Your task to perform on an android device: delete location history Image 0: 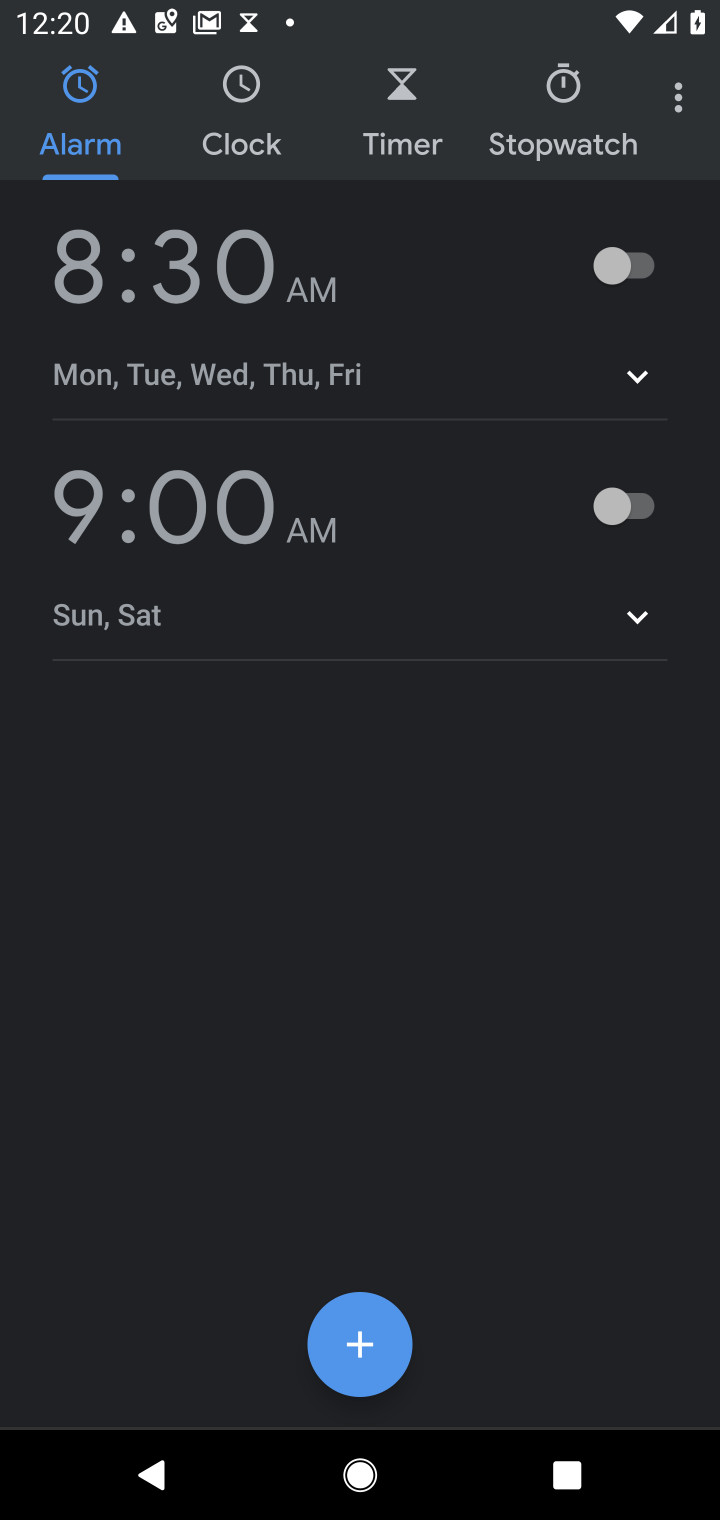
Step 0: press home button
Your task to perform on an android device: delete location history Image 1: 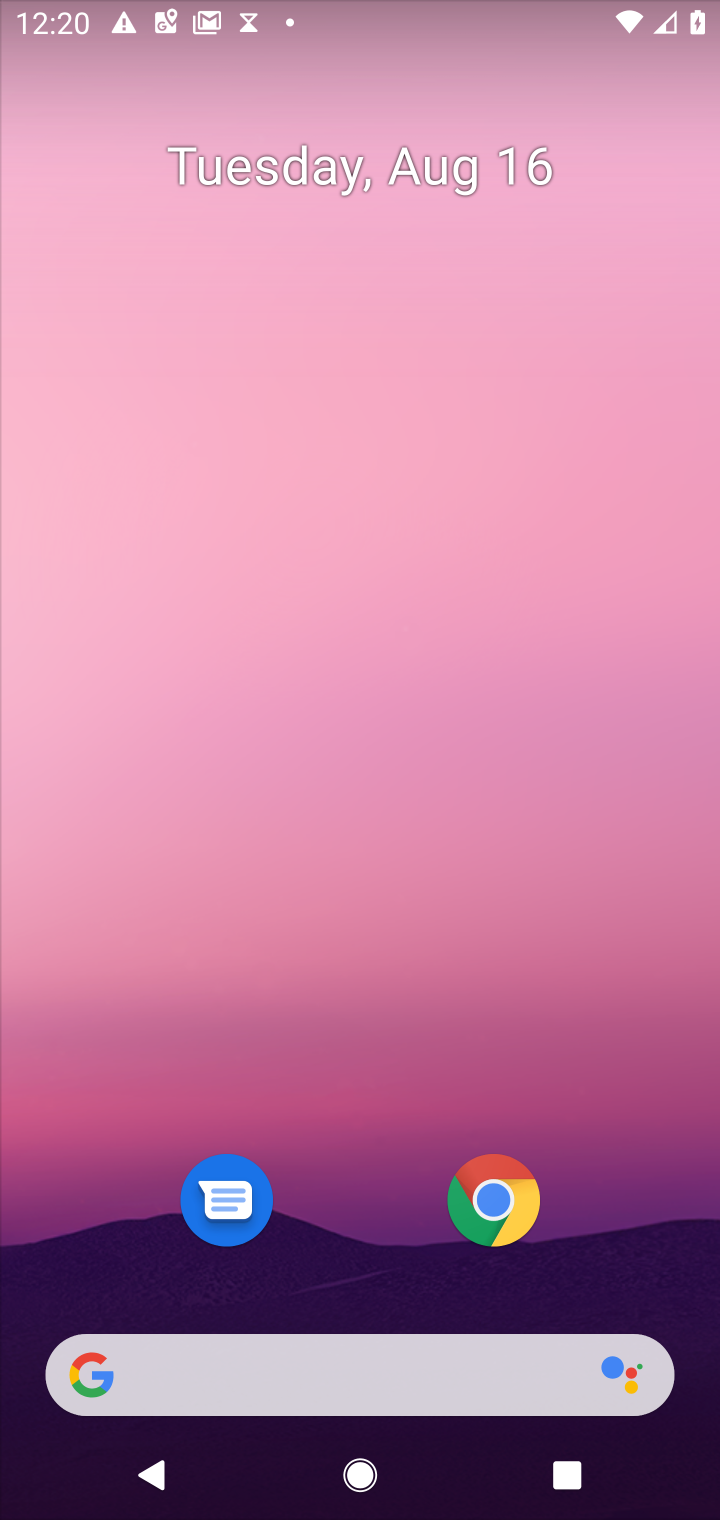
Step 1: click (413, 385)
Your task to perform on an android device: delete location history Image 2: 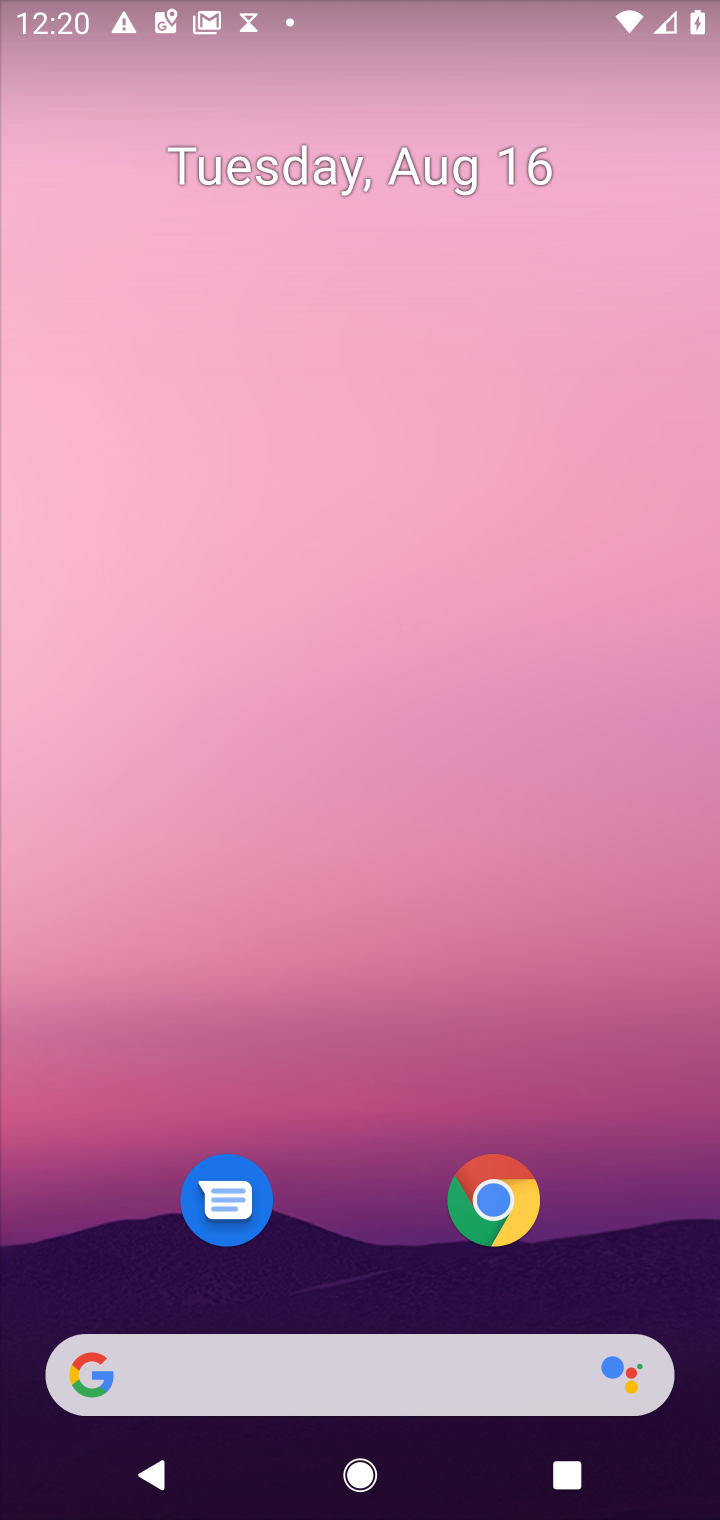
Step 2: drag from (327, 1126) to (294, 462)
Your task to perform on an android device: delete location history Image 3: 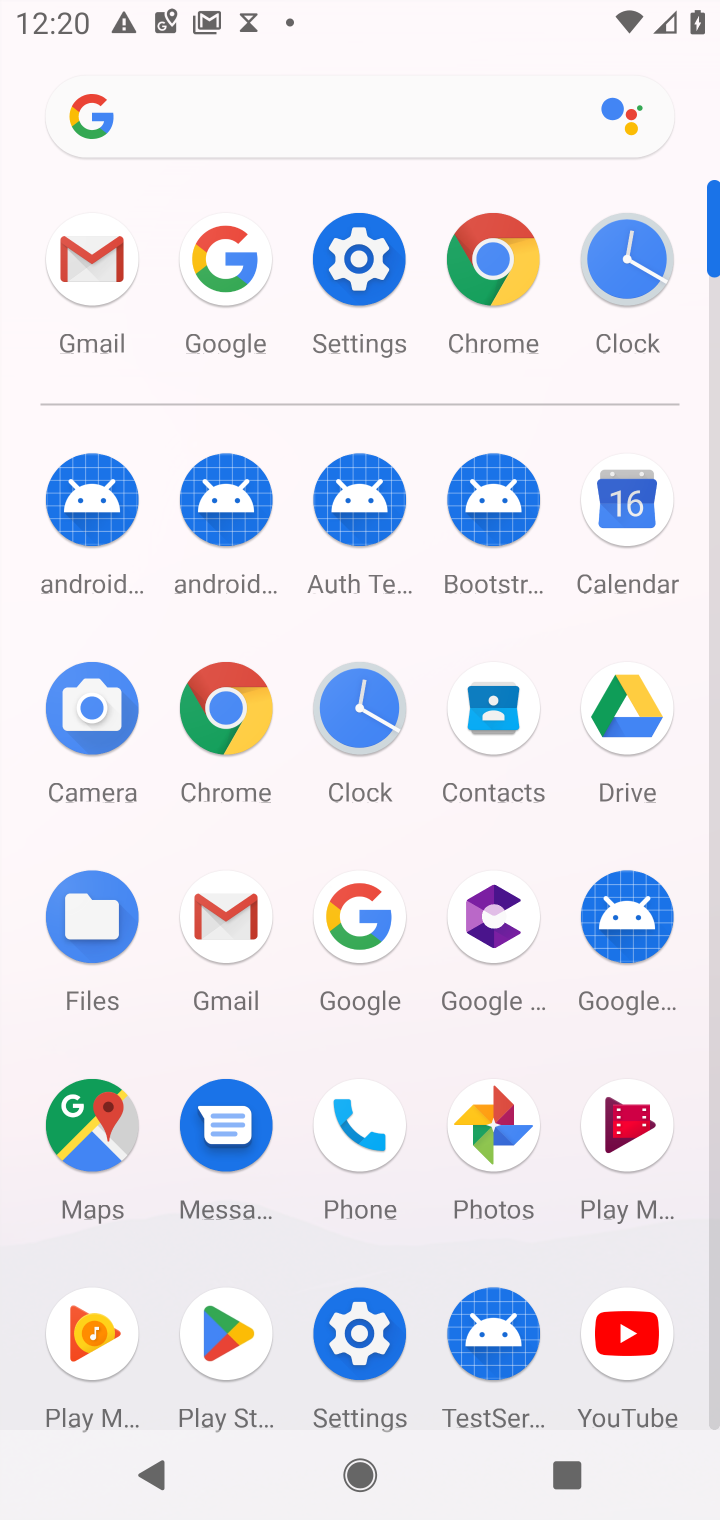
Step 3: click (110, 1139)
Your task to perform on an android device: delete location history Image 4: 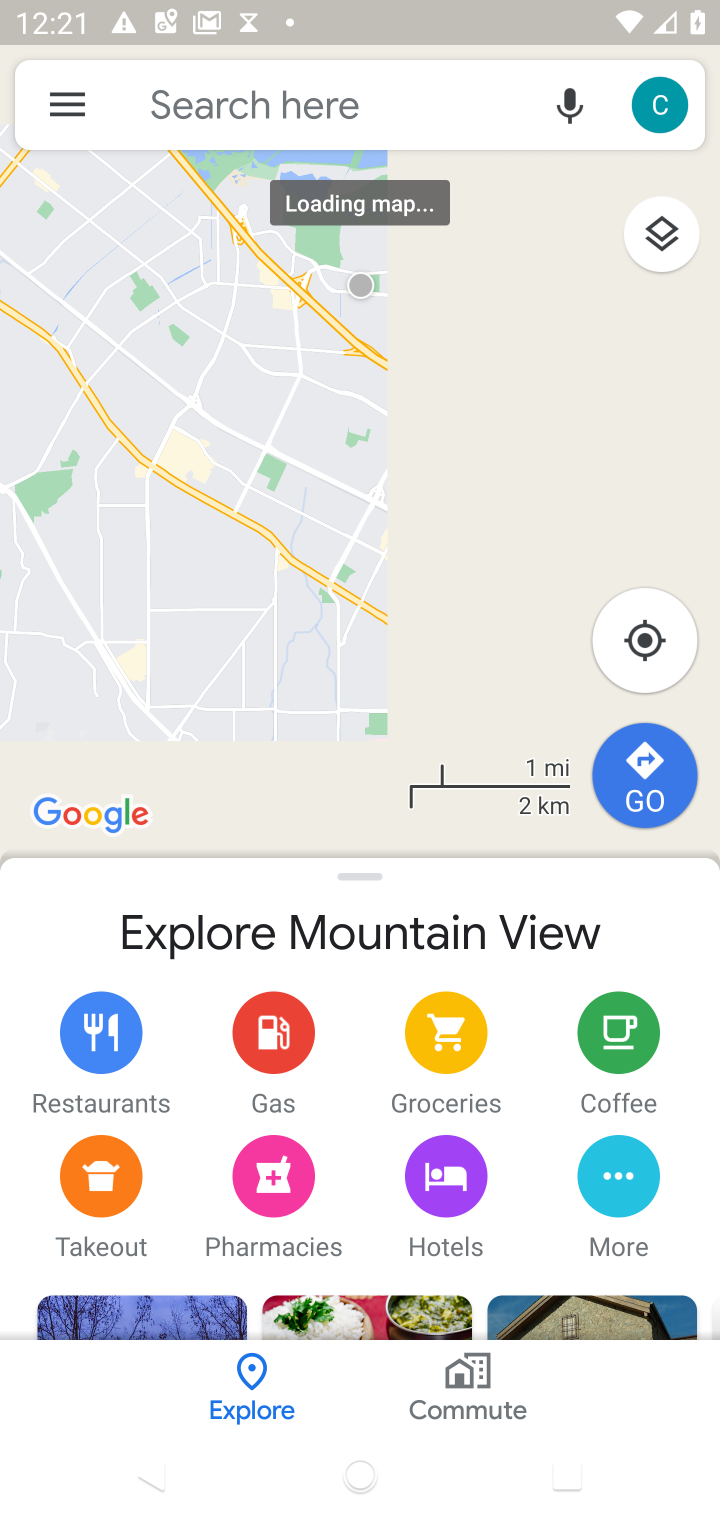
Step 4: click (44, 123)
Your task to perform on an android device: delete location history Image 5: 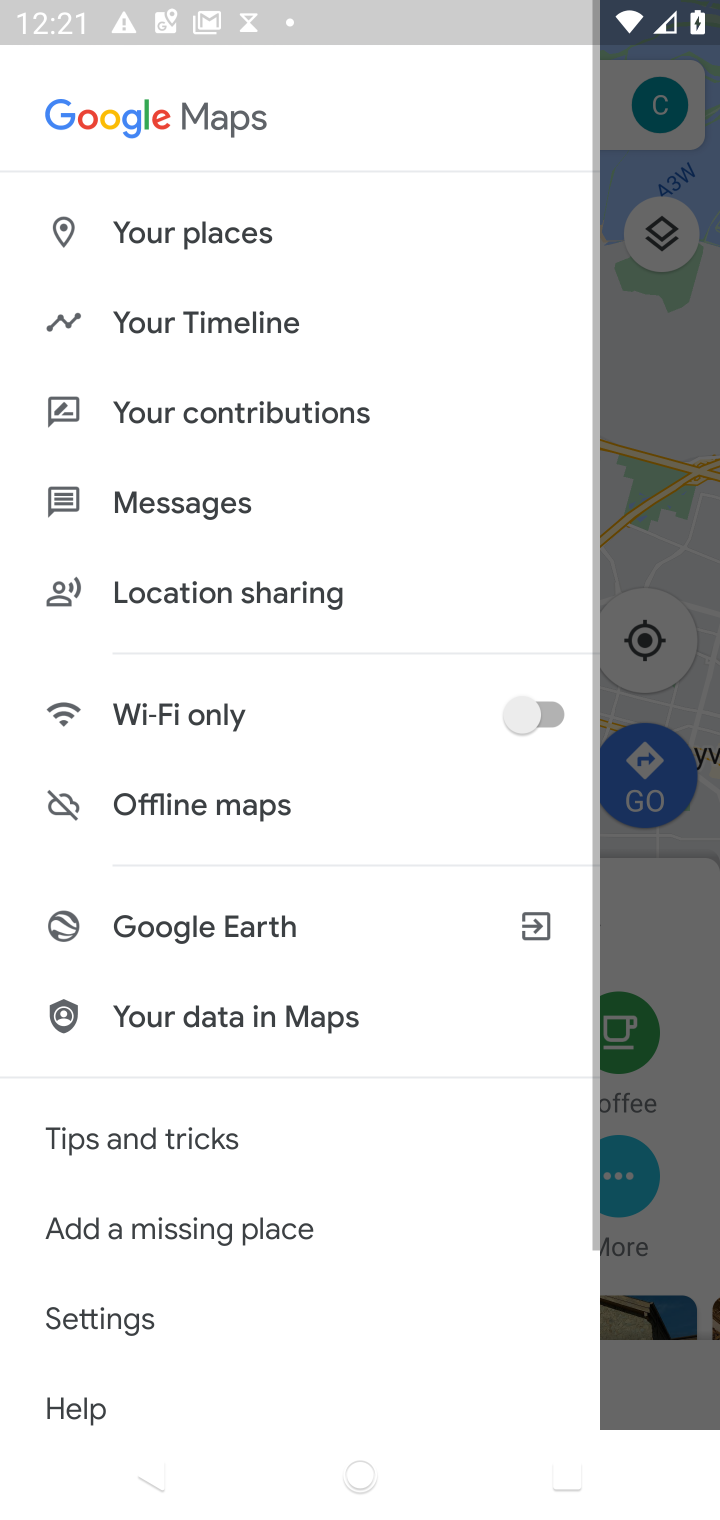
Step 5: click (244, 318)
Your task to perform on an android device: delete location history Image 6: 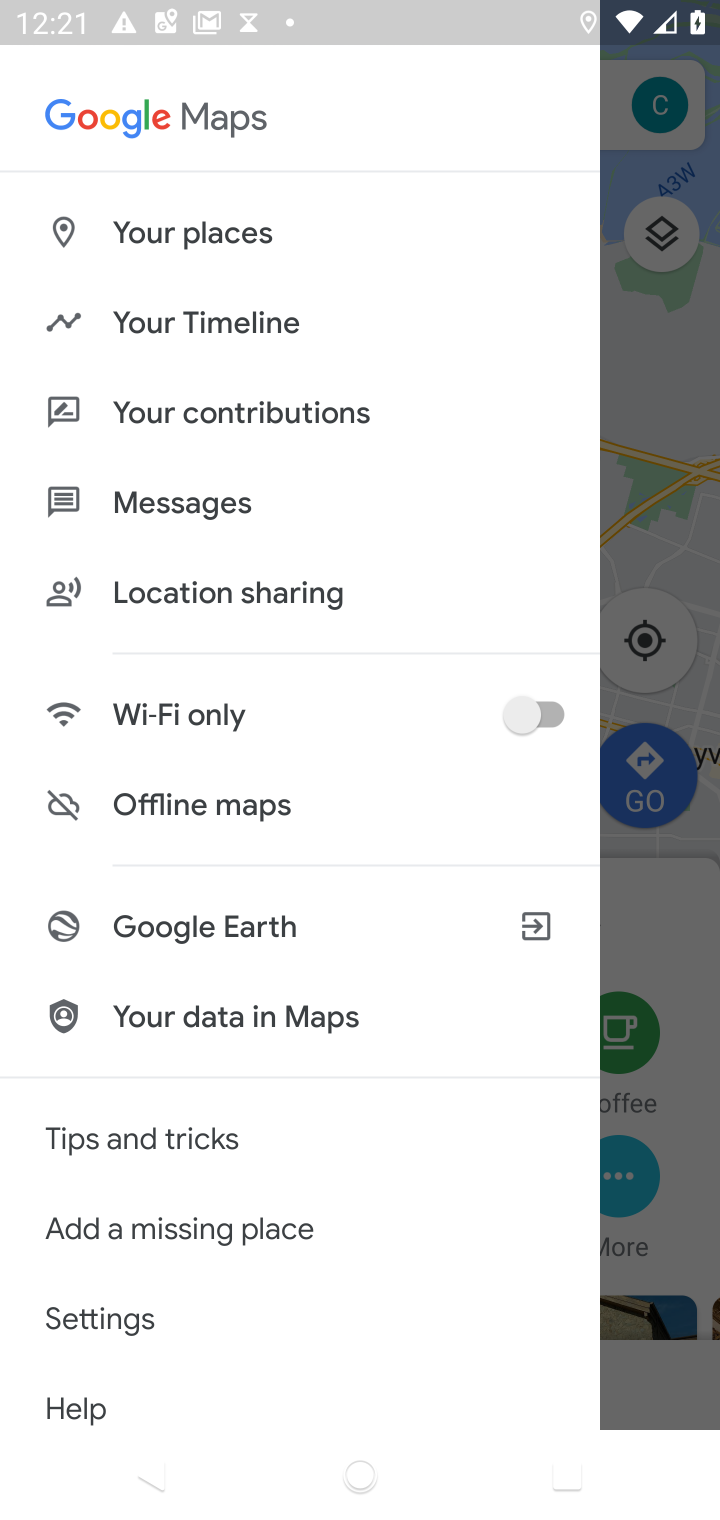
Step 6: click (250, 319)
Your task to perform on an android device: delete location history Image 7: 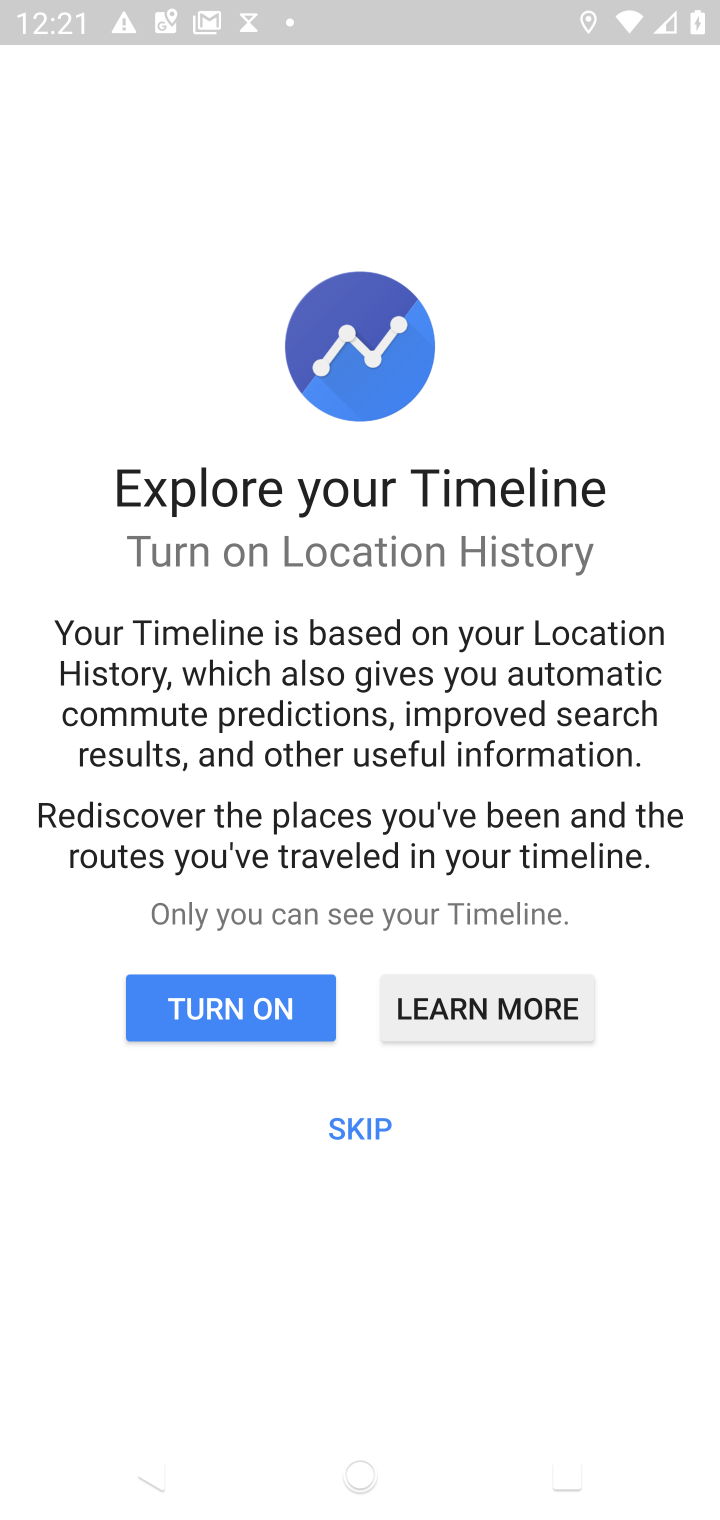
Step 7: click (360, 1117)
Your task to perform on an android device: delete location history Image 8: 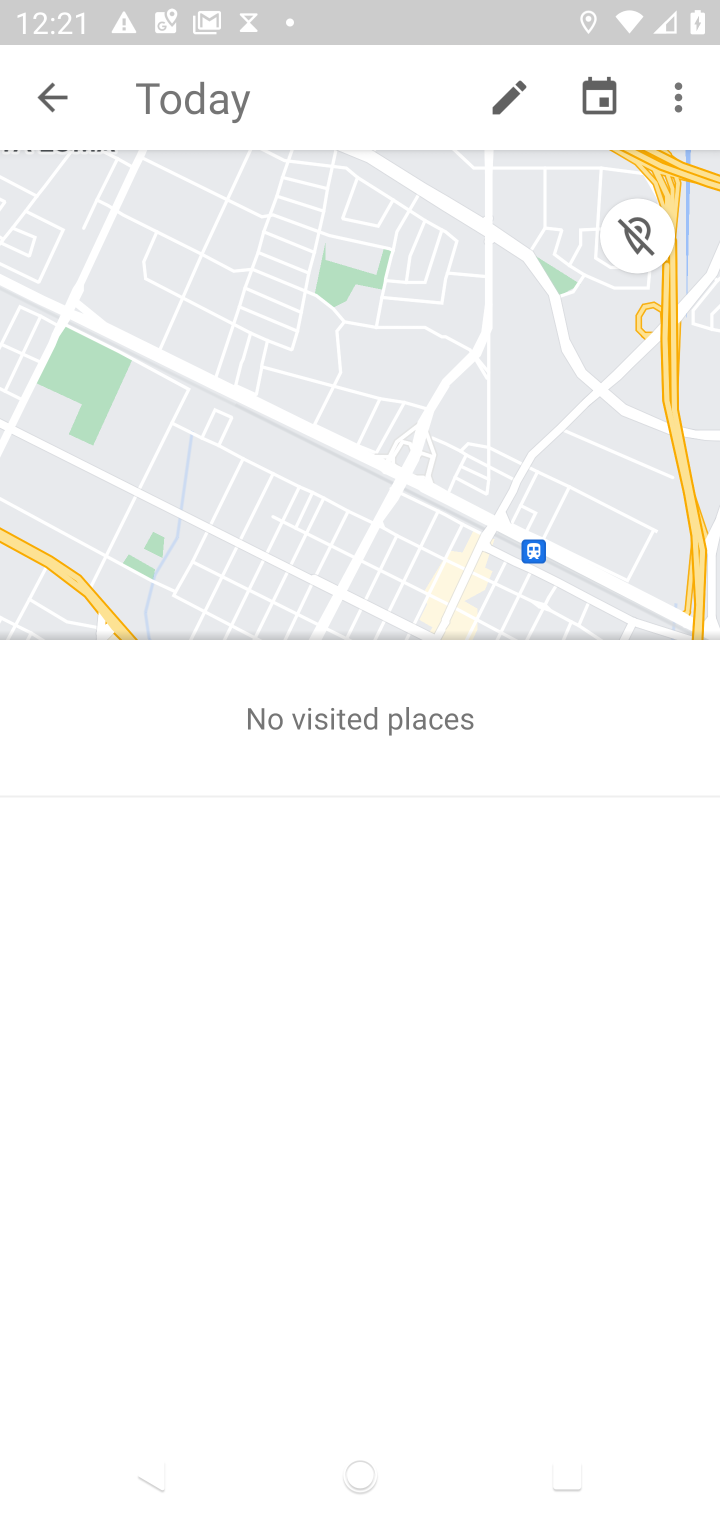
Step 8: click (675, 106)
Your task to perform on an android device: delete location history Image 9: 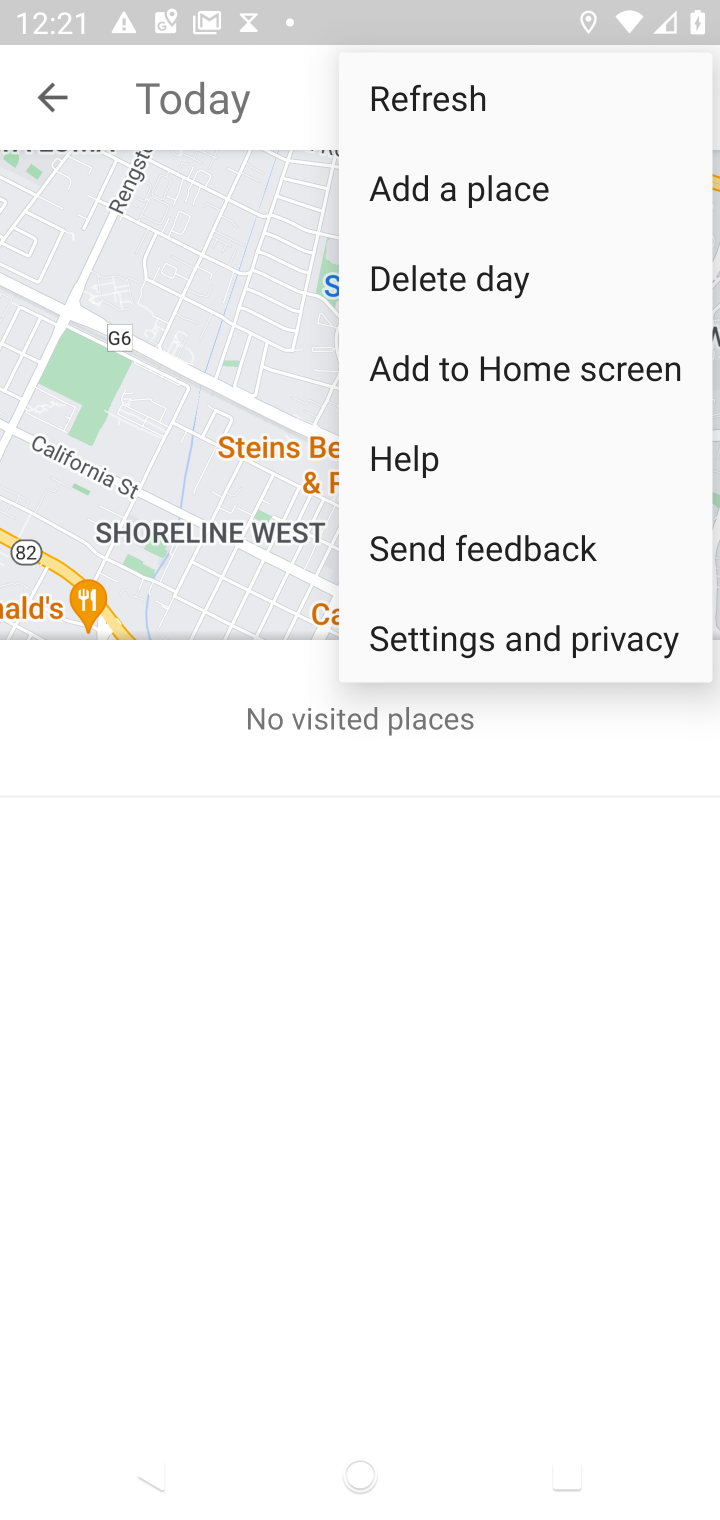
Step 9: click (481, 668)
Your task to perform on an android device: delete location history Image 10: 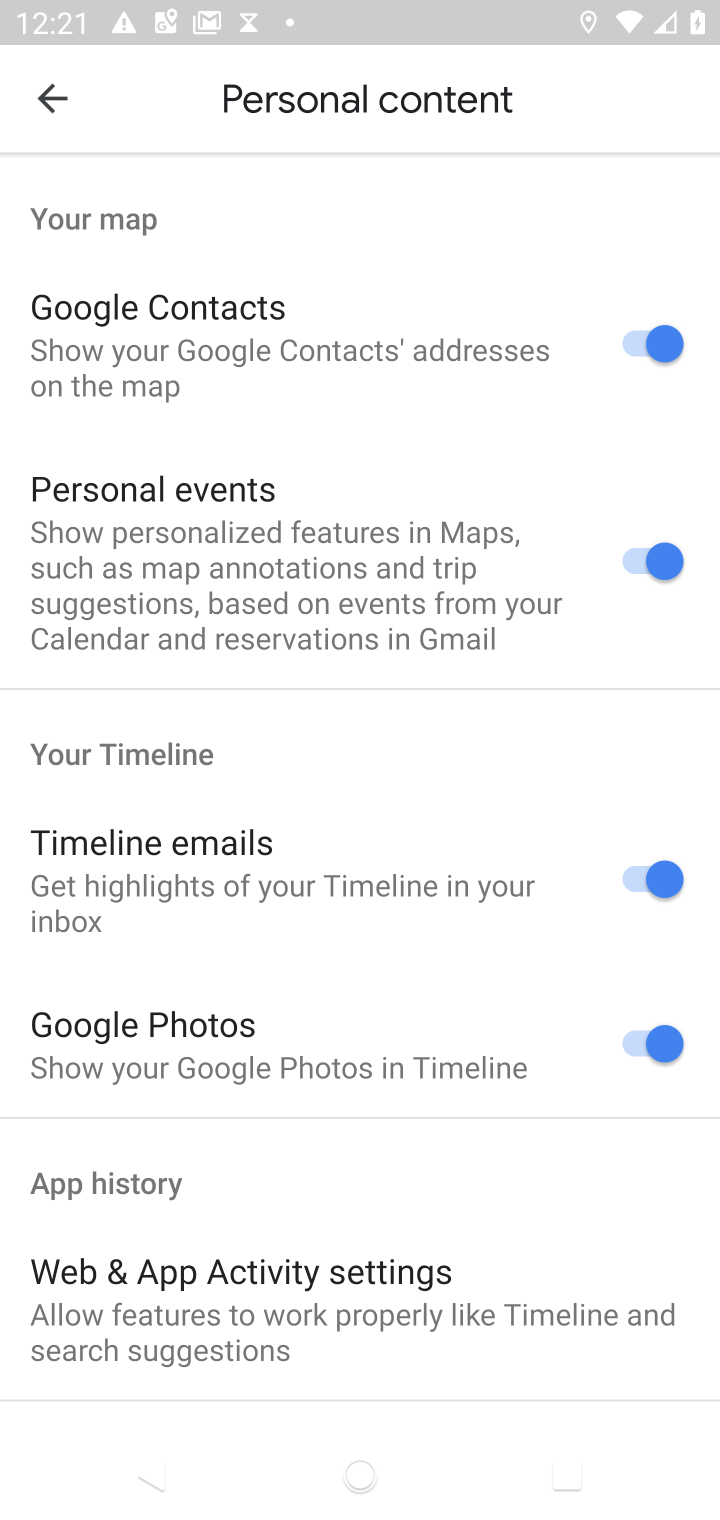
Step 10: drag from (350, 1201) to (332, 501)
Your task to perform on an android device: delete location history Image 11: 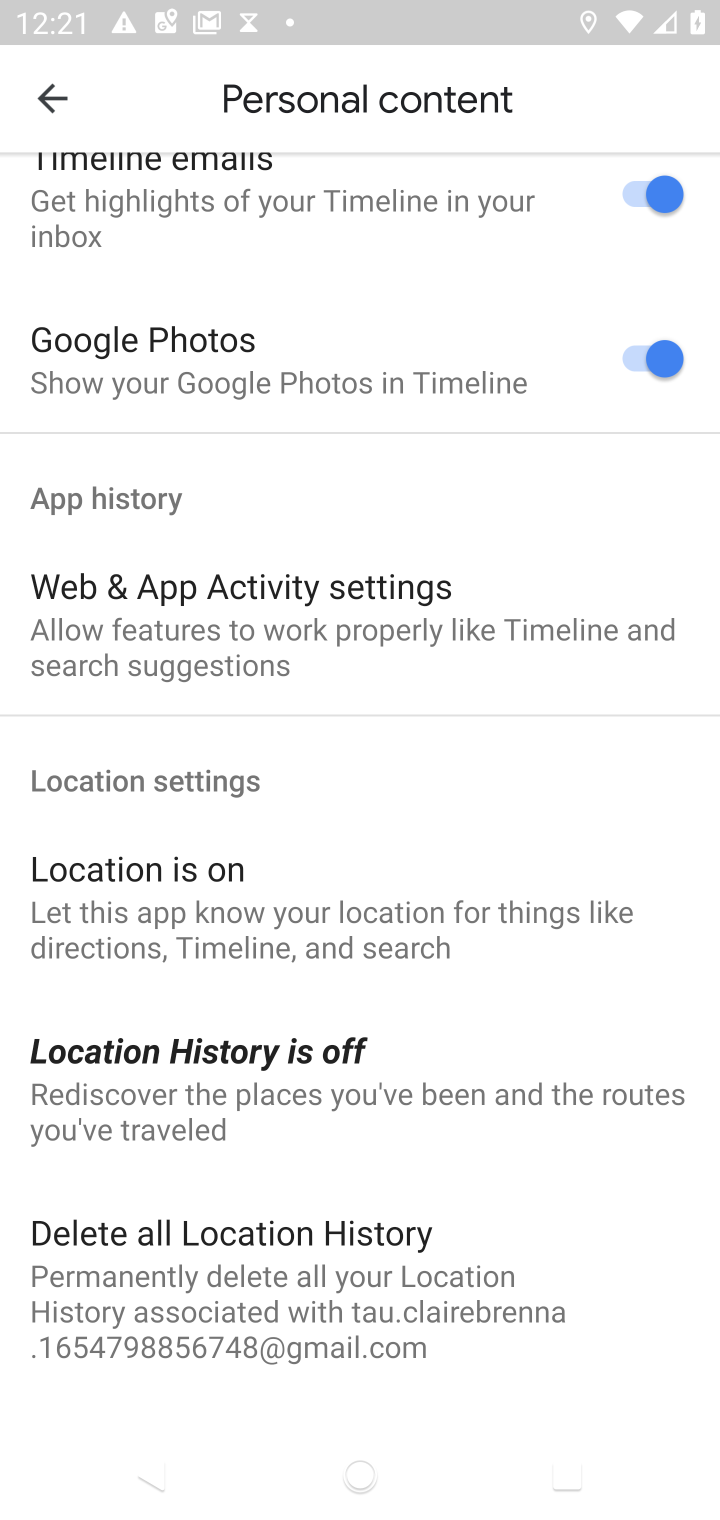
Step 11: drag from (314, 1106) to (314, 665)
Your task to perform on an android device: delete location history Image 12: 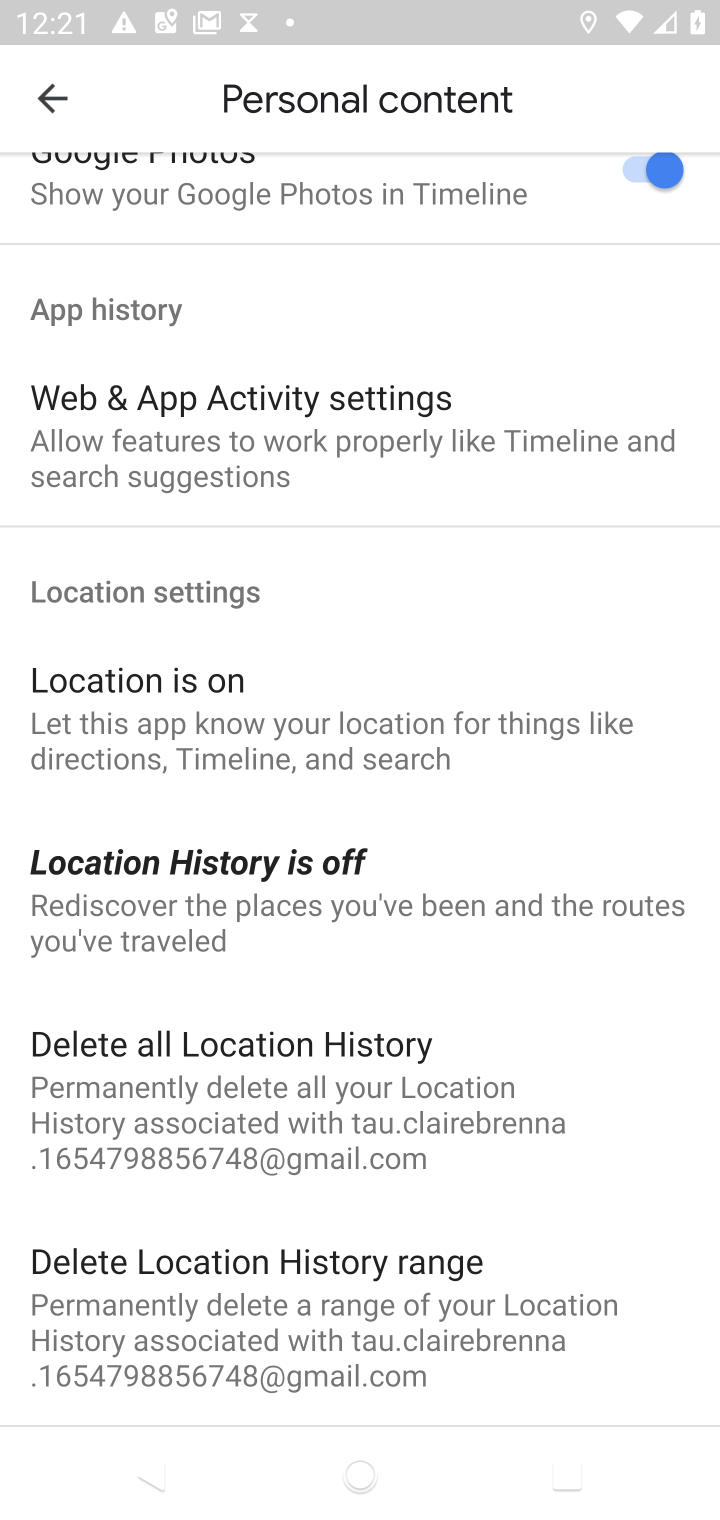
Step 12: click (334, 1111)
Your task to perform on an android device: delete location history Image 13: 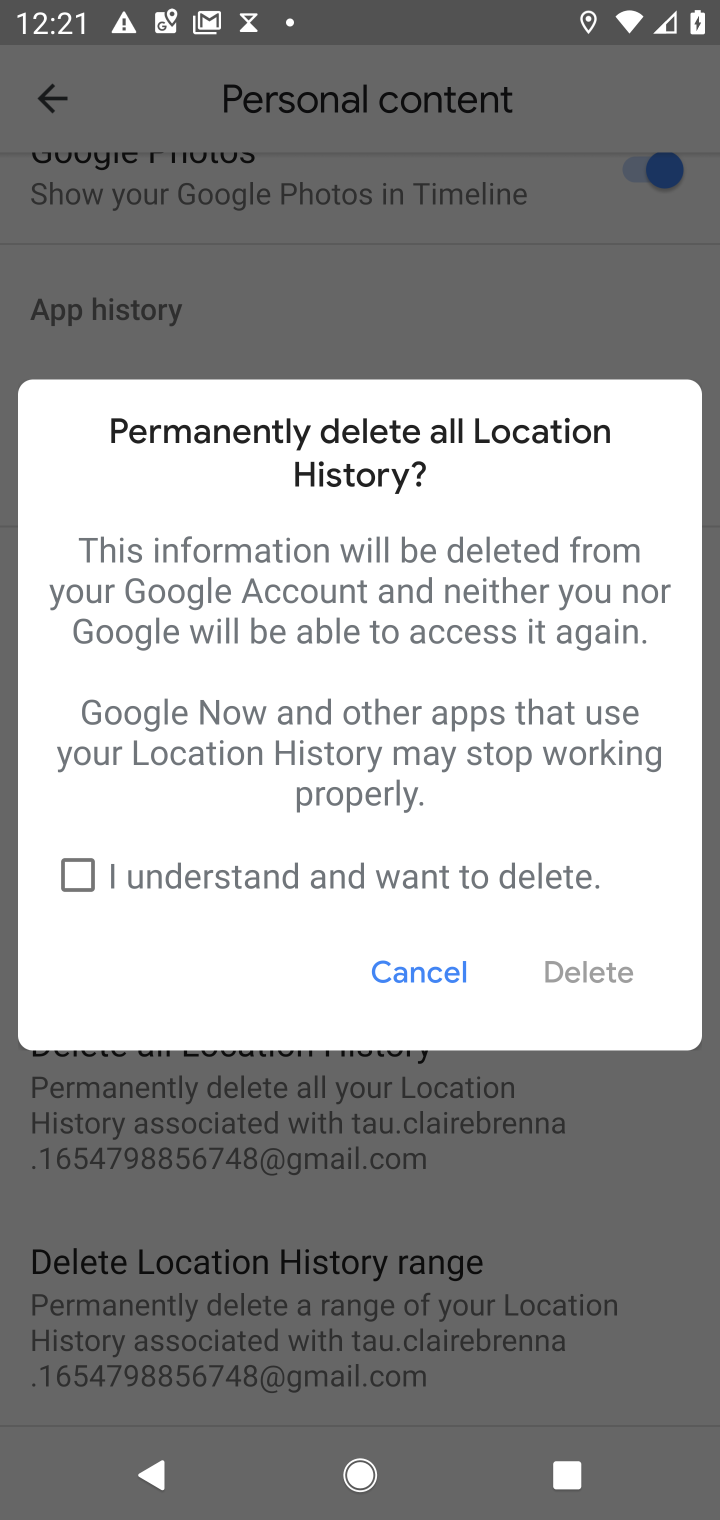
Step 13: click (109, 880)
Your task to perform on an android device: delete location history Image 14: 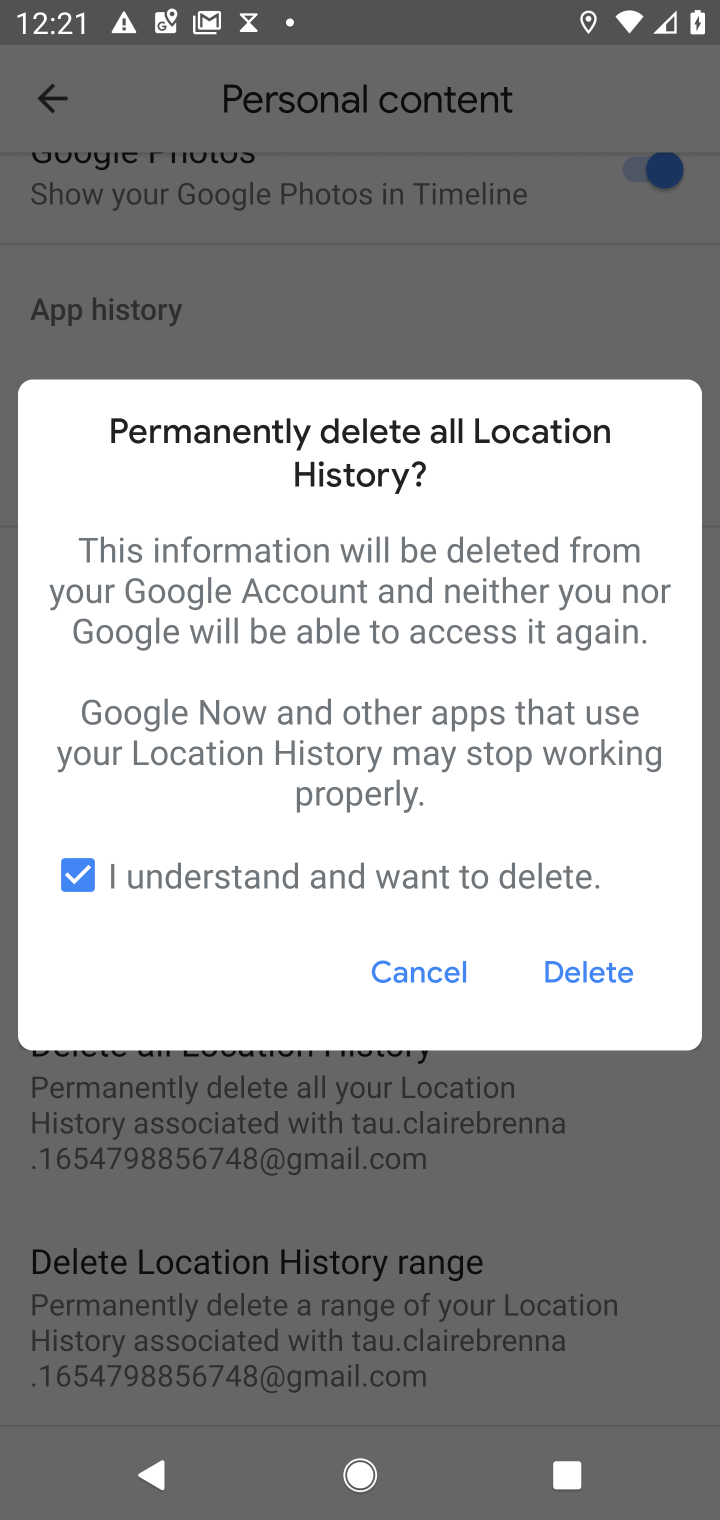
Step 14: click (615, 973)
Your task to perform on an android device: delete location history Image 15: 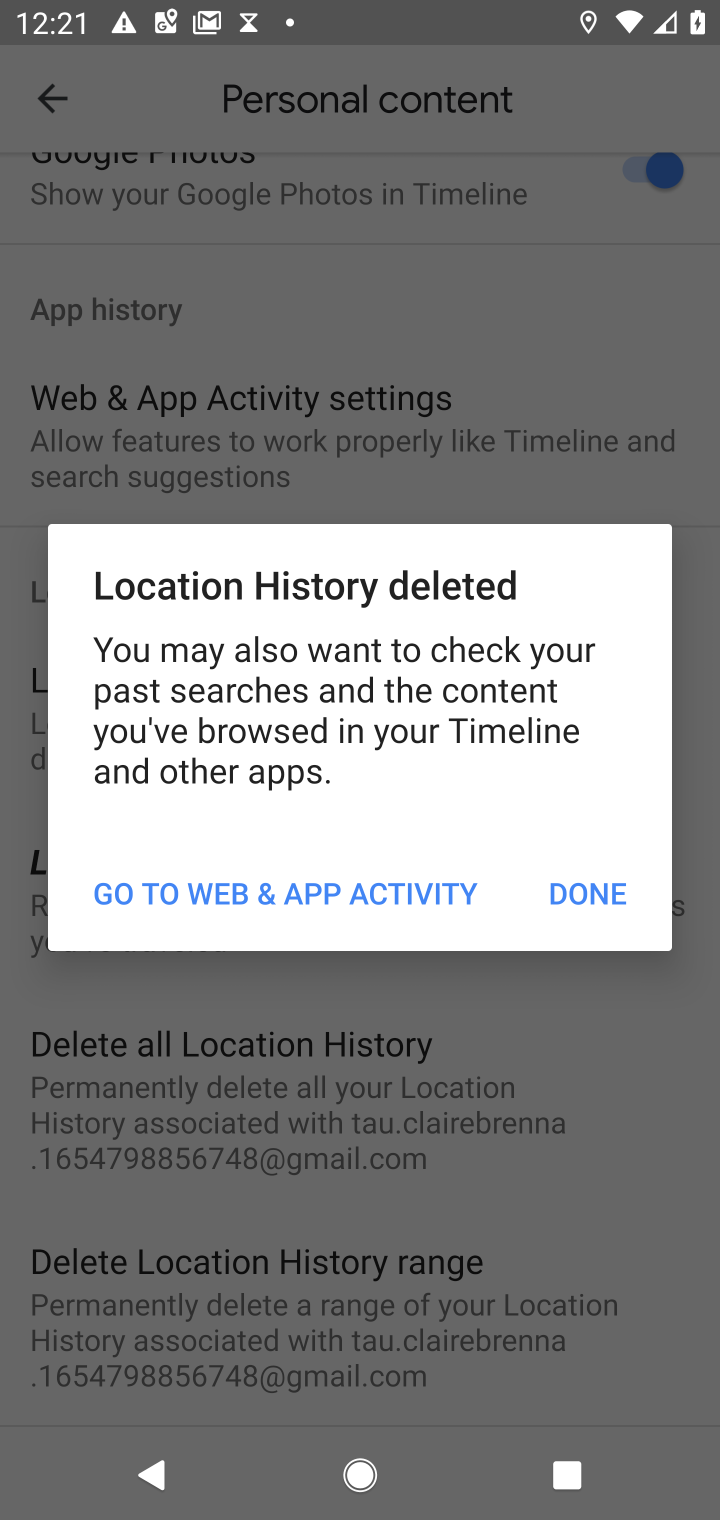
Step 15: click (620, 880)
Your task to perform on an android device: delete location history Image 16: 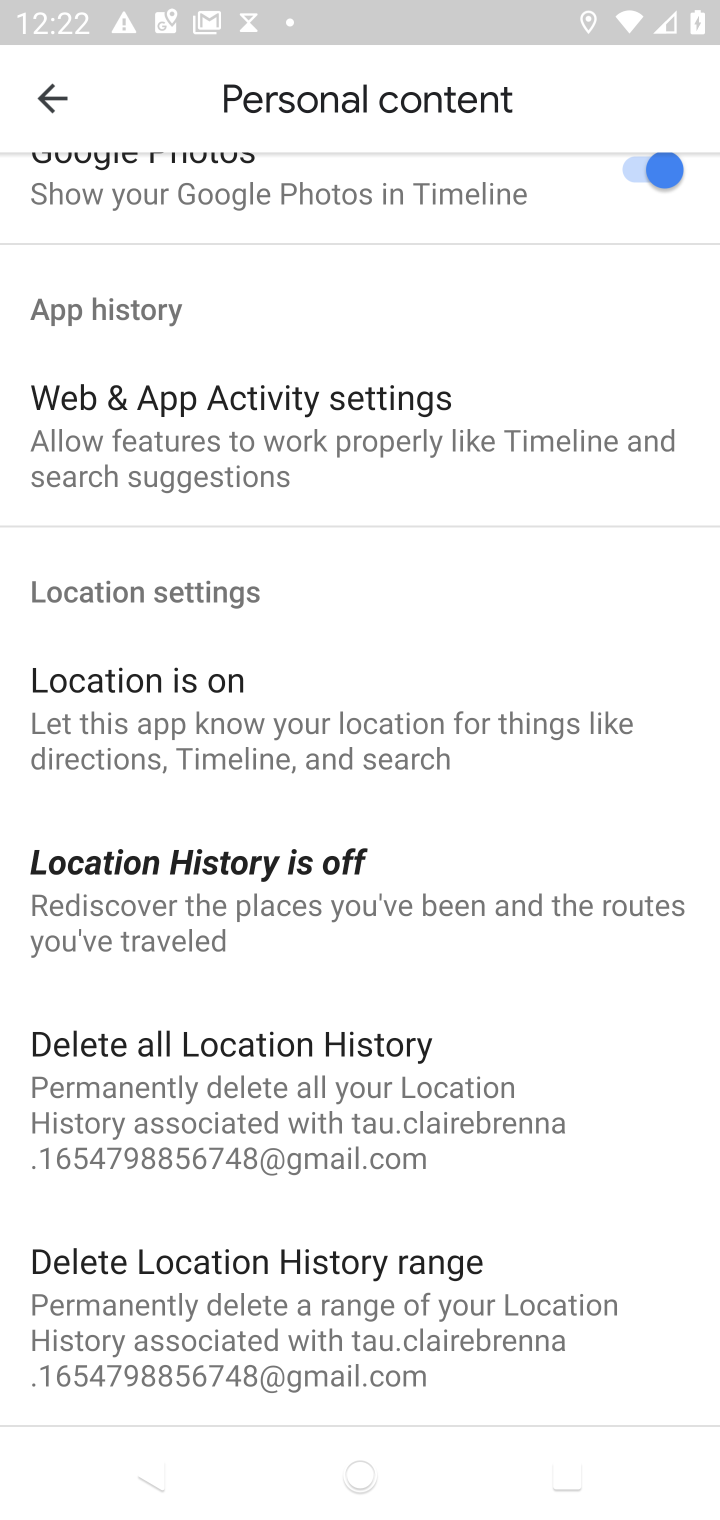
Step 16: task complete